Your task to perform on an android device: star an email in the gmail app Image 0: 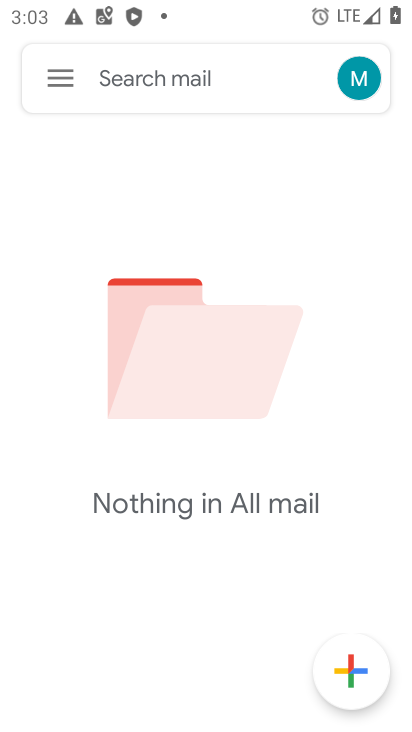
Step 0: press home button
Your task to perform on an android device: star an email in the gmail app Image 1: 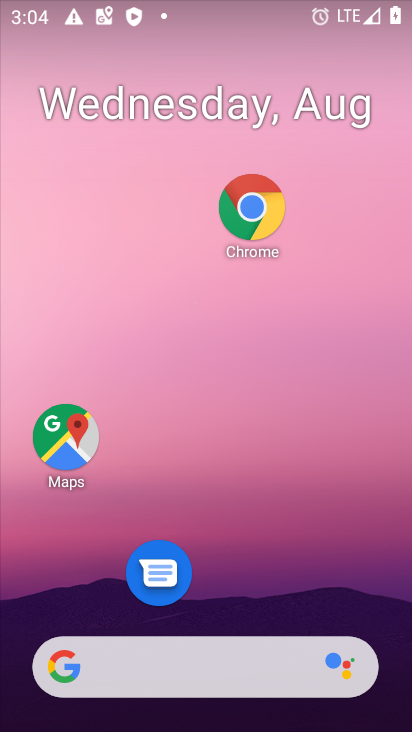
Step 1: drag from (278, 629) to (286, 97)
Your task to perform on an android device: star an email in the gmail app Image 2: 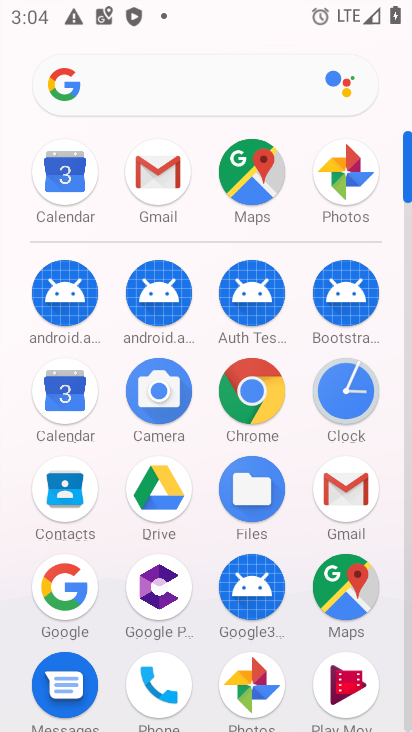
Step 2: click (352, 501)
Your task to perform on an android device: star an email in the gmail app Image 3: 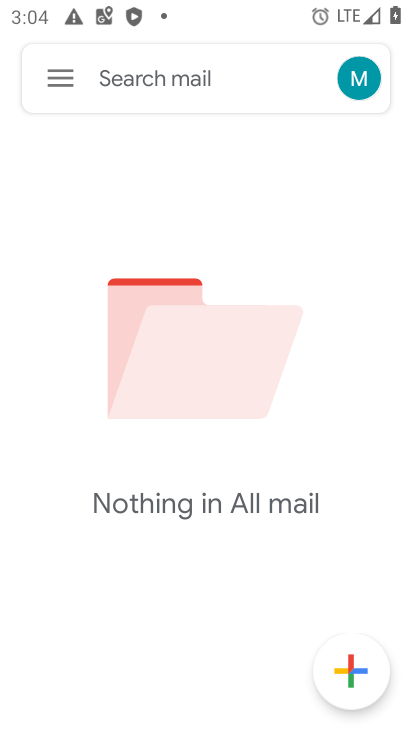
Step 3: task complete